Your task to perform on an android device: What's the weather going to be tomorrow? Image 0: 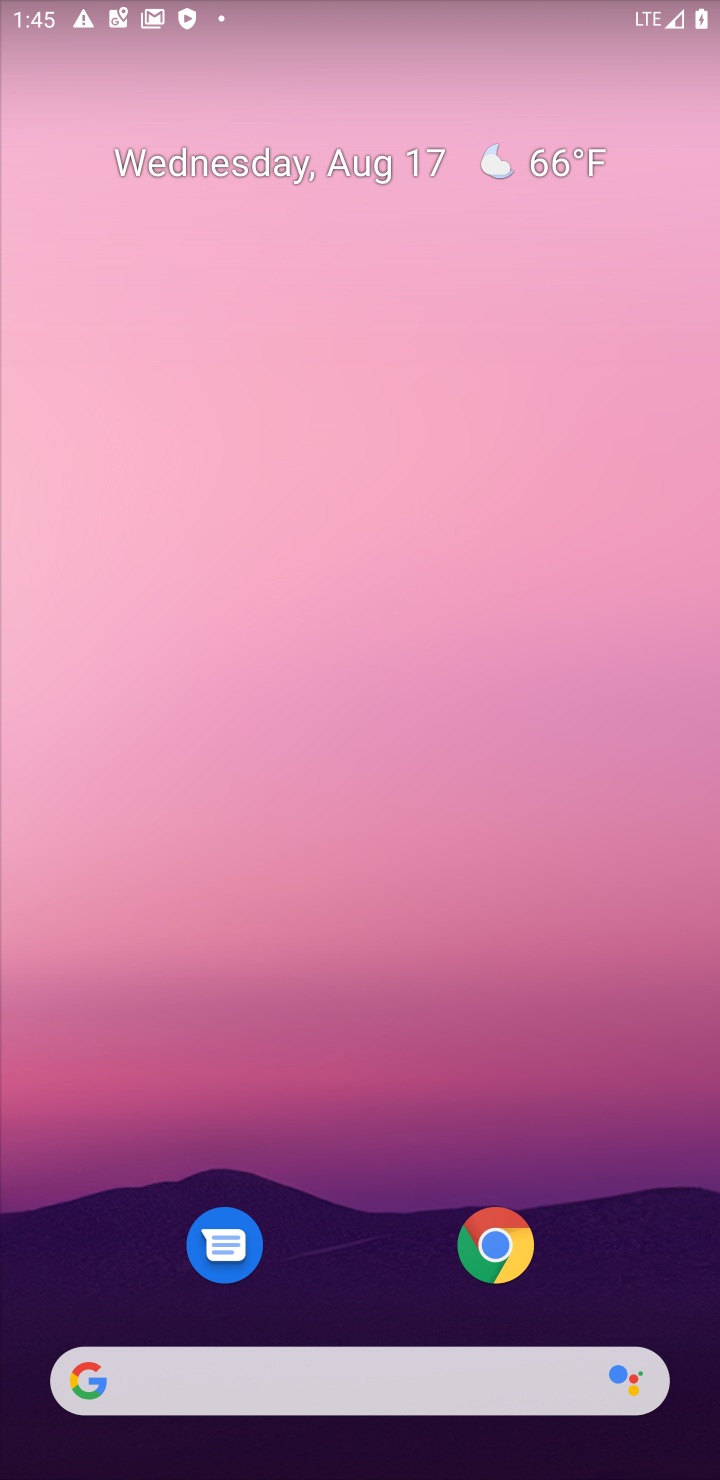
Step 0: drag from (383, 883) to (385, 129)
Your task to perform on an android device: What's the weather going to be tomorrow? Image 1: 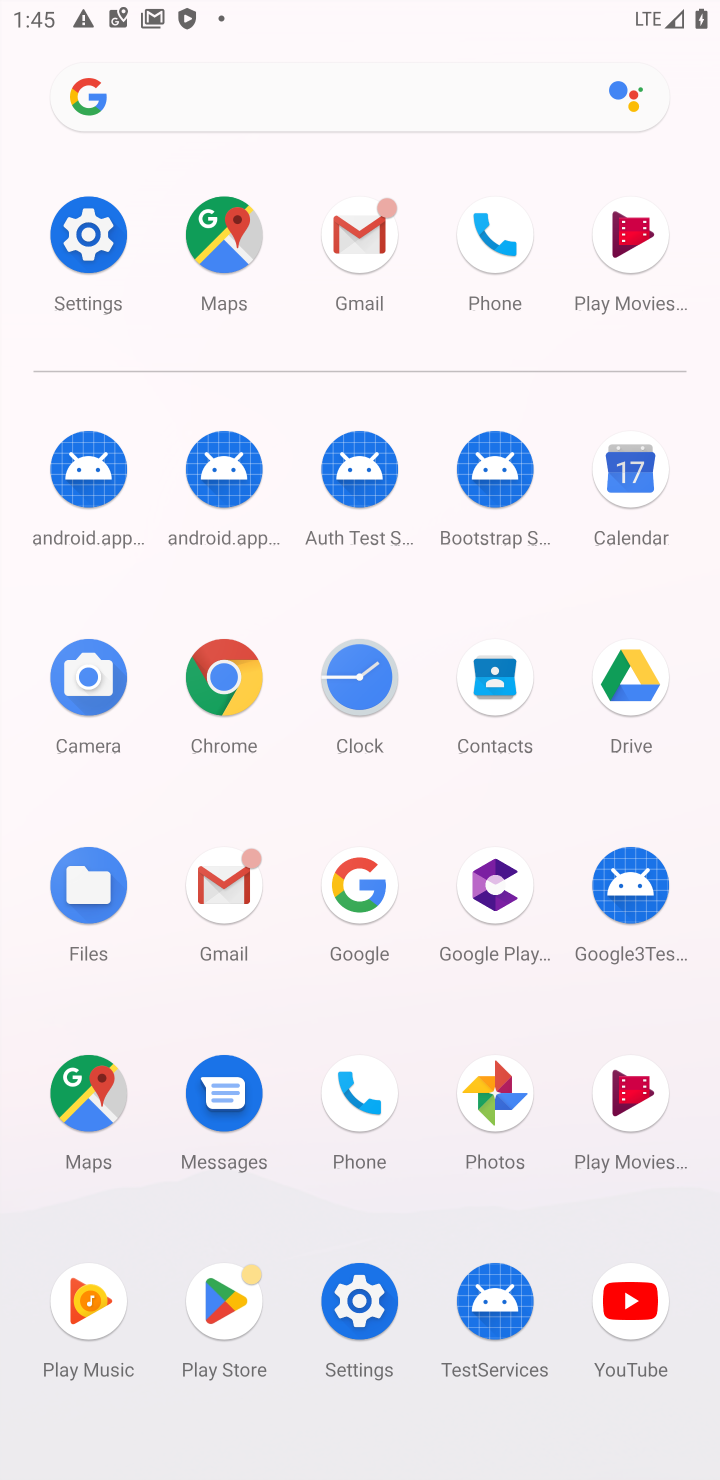
Step 1: click (351, 894)
Your task to perform on an android device: What's the weather going to be tomorrow? Image 2: 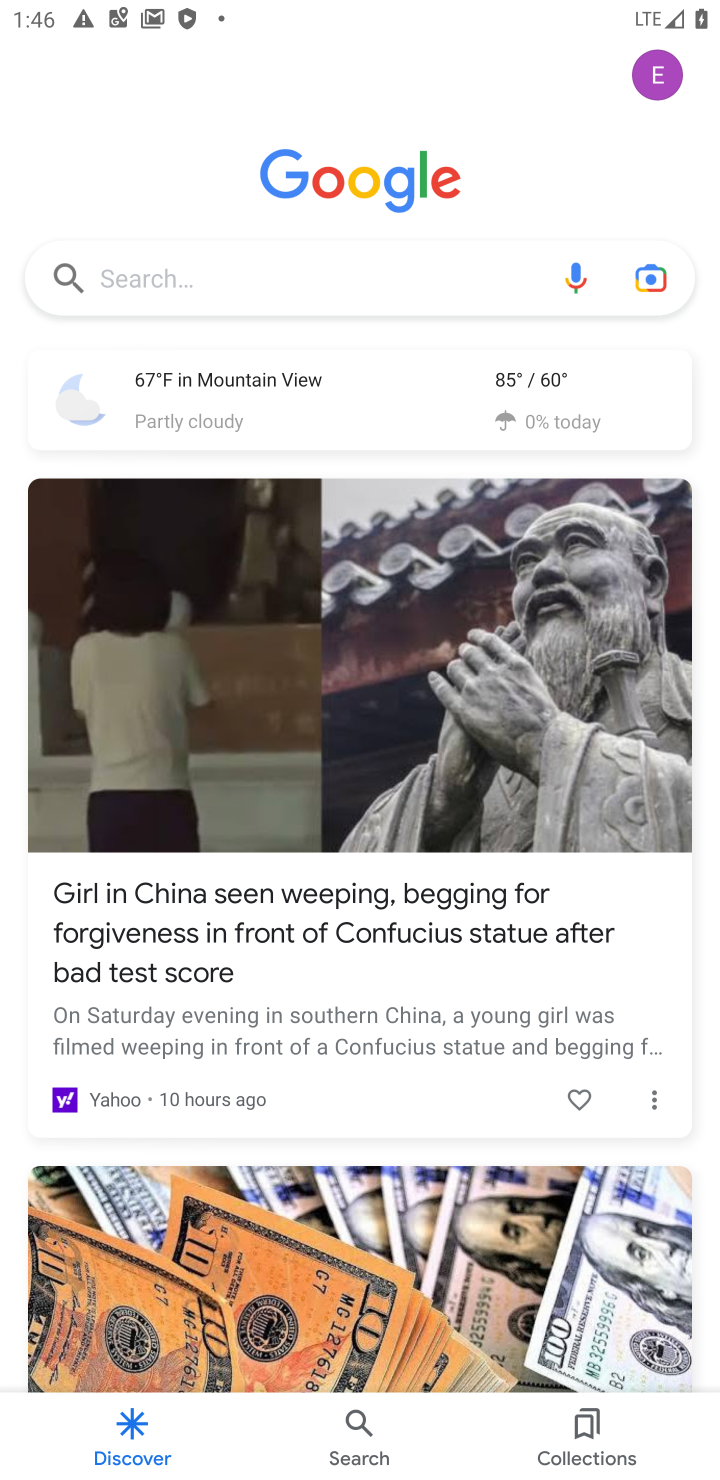
Step 2: click (87, 401)
Your task to perform on an android device: What's the weather going to be tomorrow? Image 3: 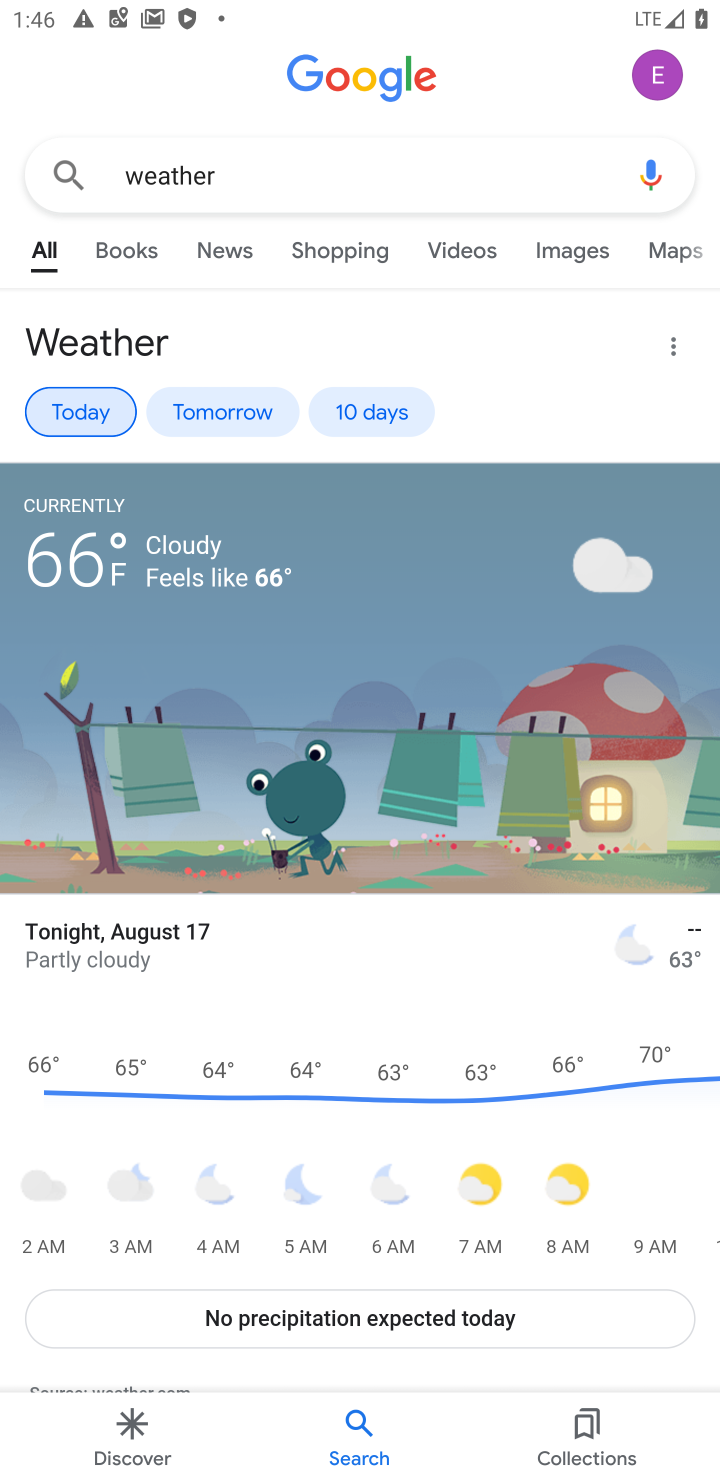
Step 3: click (209, 416)
Your task to perform on an android device: What's the weather going to be tomorrow? Image 4: 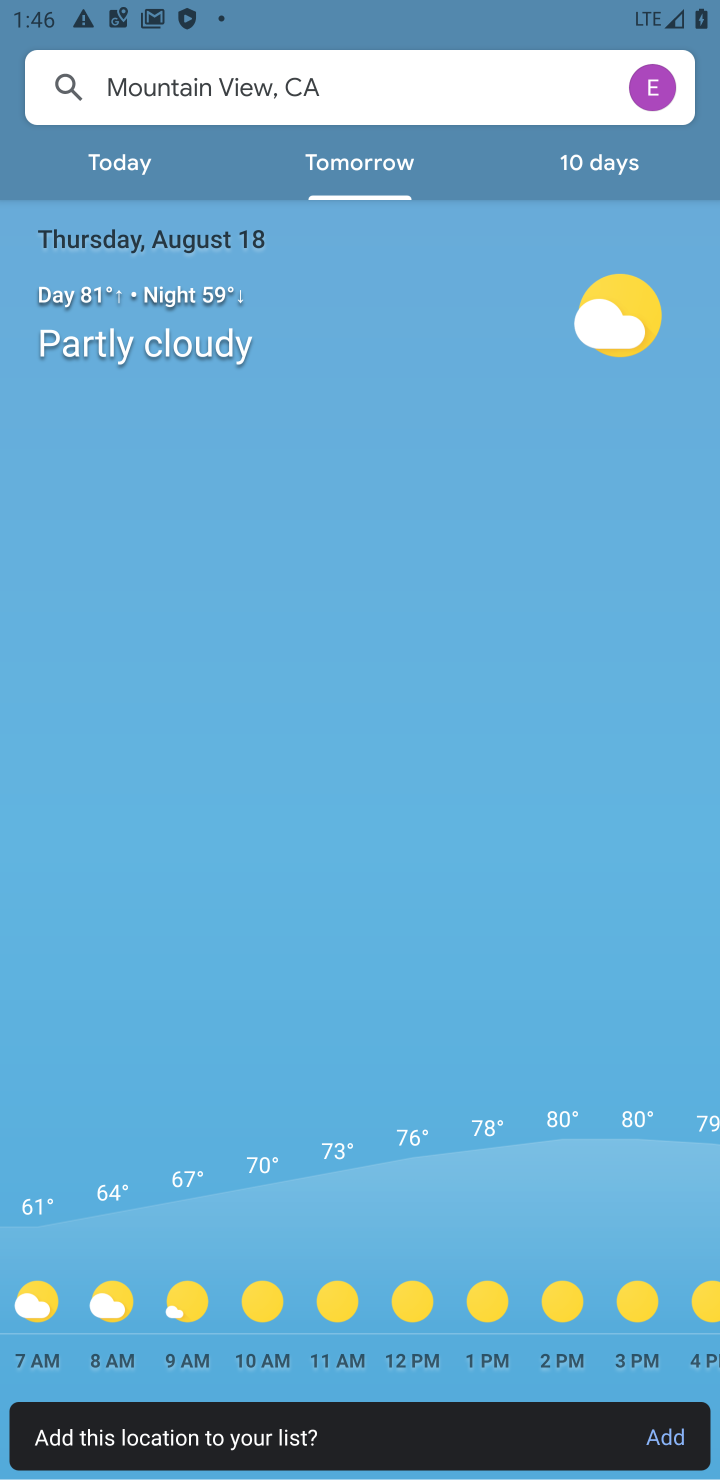
Step 4: task complete